Your task to perform on an android device: Go to Reddit.com Image 0: 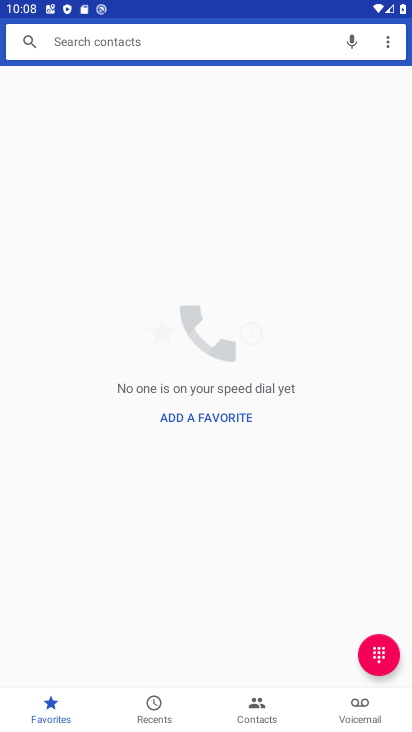
Step 0: press back button
Your task to perform on an android device: Go to Reddit.com Image 1: 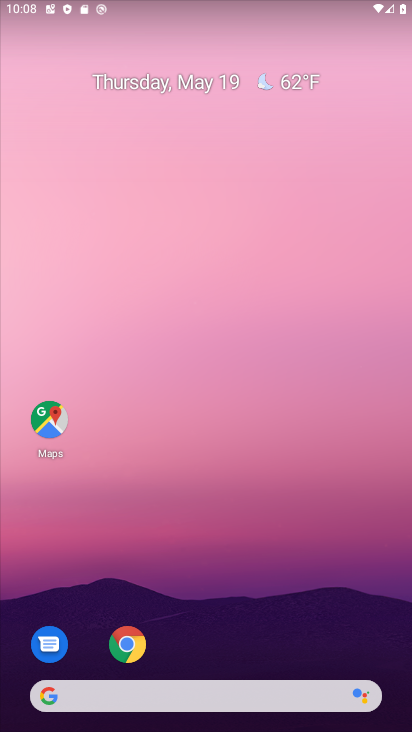
Step 1: drag from (245, 697) to (248, 126)
Your task to perform on an android device: Go to Reddit.com Image 2: 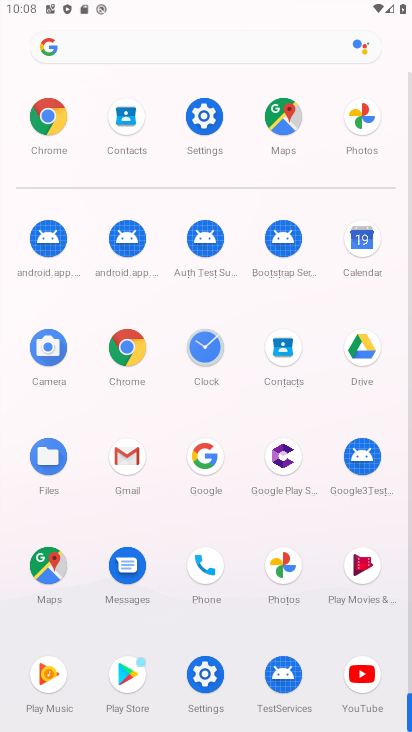
Step 2: click (50, 128)
Your task to perform on an android device: Go to Reddit.com Image 3: 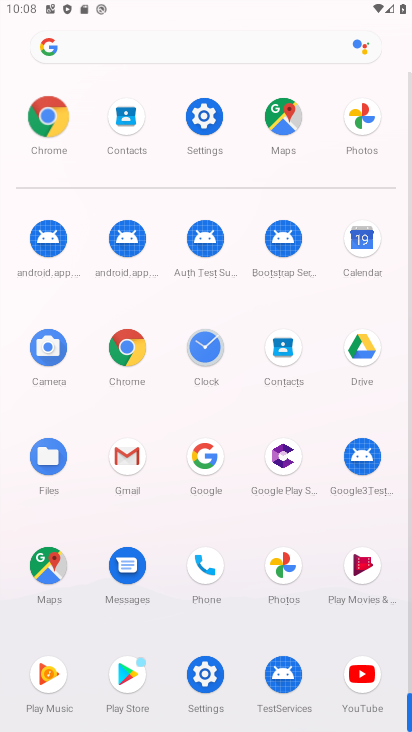
Step 3: click (50, 128)
Your task to perform on an android device: Go to Reddit.com Image 4: 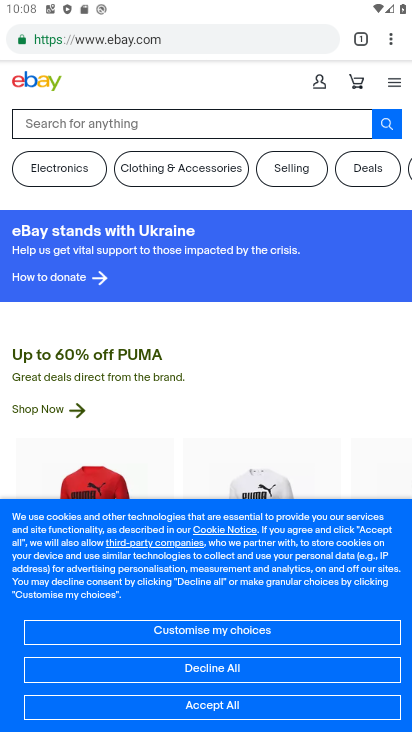
Step 4: drag from (388, 36) to (256, 134)
Your task to perform on an android device: Go to Reddit.com Image 5: 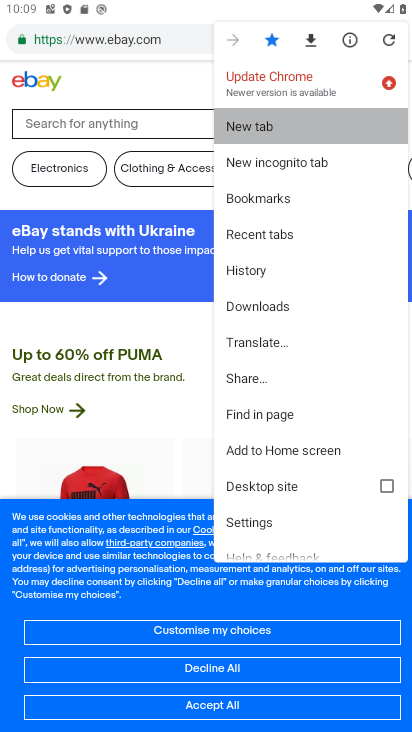
Step 5: click (256, 134)
Your task to perform on an android device: Go to Reddit.com Image 6: 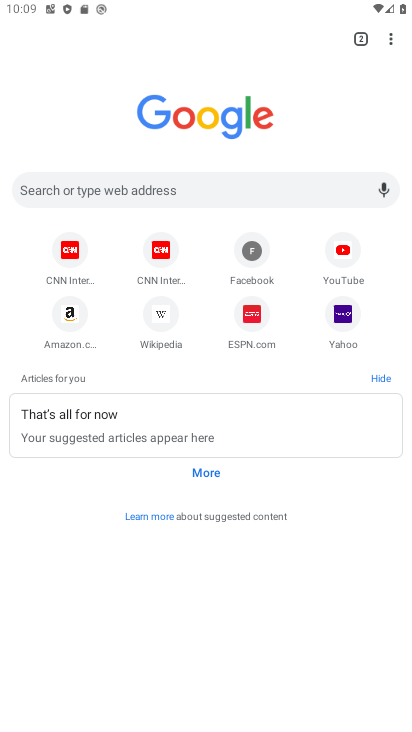
Step 6: click (52, 188)
Your task to perform on an android device: Go to Reddit.com Image 7: 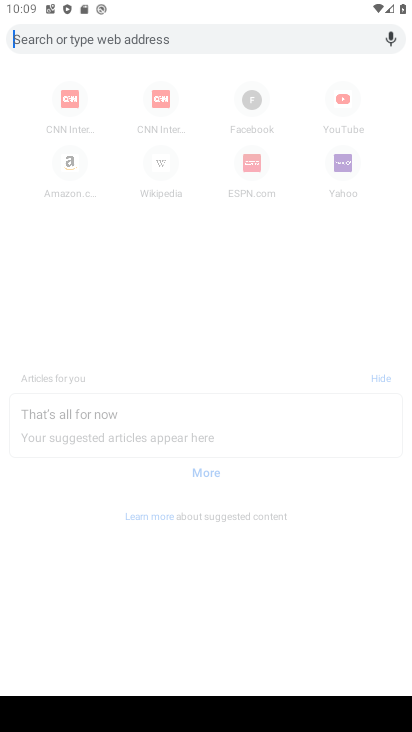
Step 7: type "reddit.com"
Your task to perform on an android device: Go to Reddit.com Image 8: 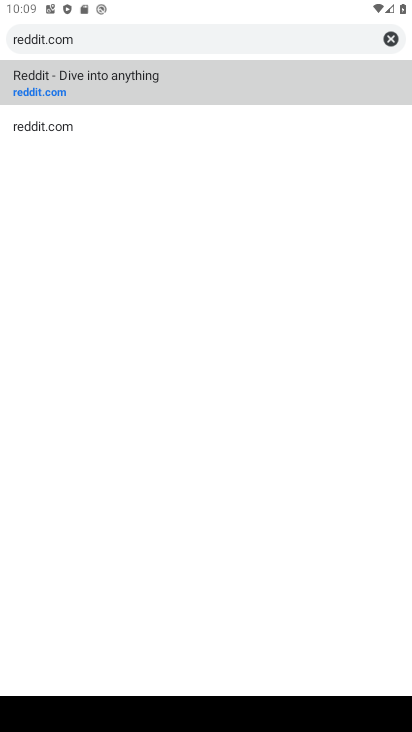
Step 8: click (39, 97)
Your task to perform on an android device: Go to Reddit.com Image 9: 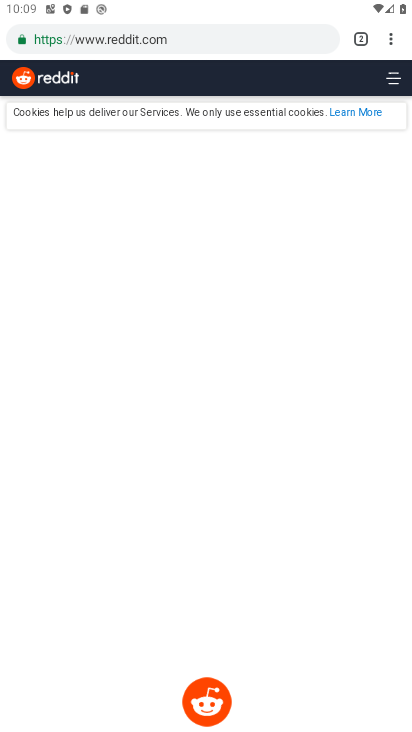
Step 9: task complete